Your task to perform on an android device: Show the shopping cart on amazon. Image 0: 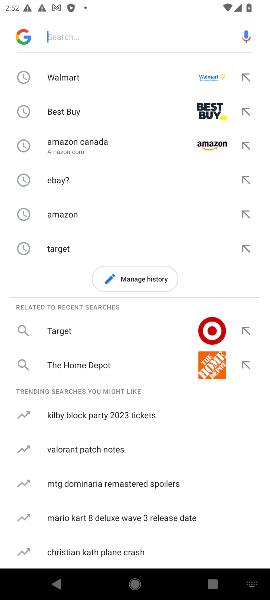
Step 0: press home button
Your task to perform on an android device: Show the shopping cart on amazon. Image 1: 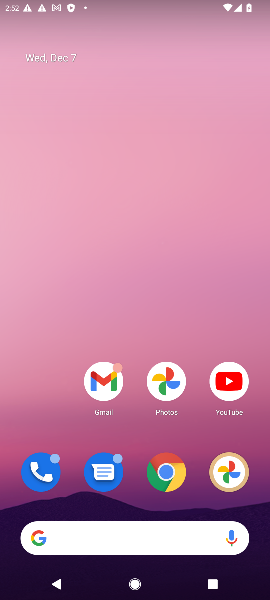
Step 1: drag from (117, 522) to (123, 245)
Your task to perform on an android device: Show the shopping cart on amazon. Image 2: 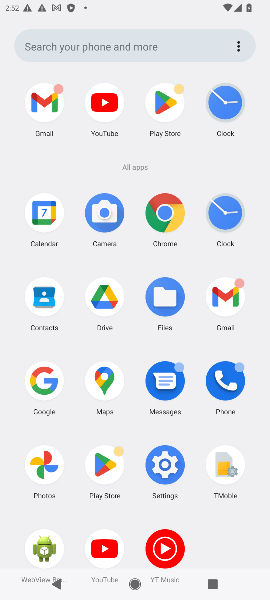
Step 2: click (45, 373)
Your task to perform on an android device: Show the shopping cart on amazon. Image 3: 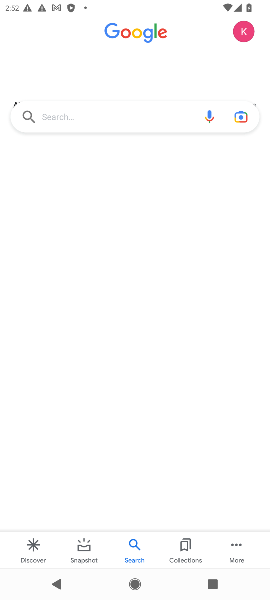
Step 3: click (122, 111)
Your task to perform on an android device: Show the shopping cart on amazon. Image 4: 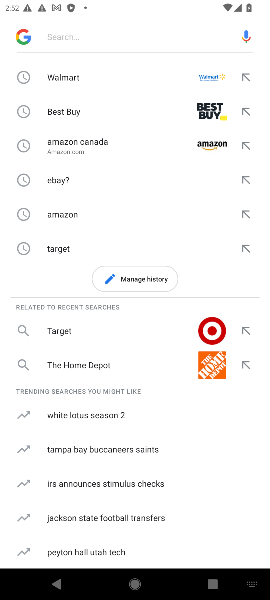
Step 4: click (98, 138)
Your task to perform on an android device: Show the shopping cart on amazon. Image 5: 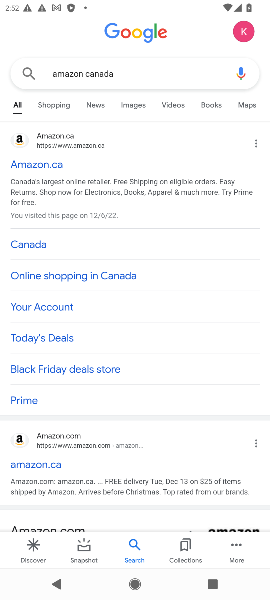
Step 5: click (42, 163)
Your task to perform on an android device: Show the shopping cart on amazon. Image 6: 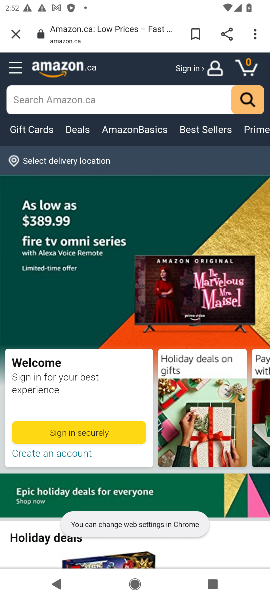
Step 6: click (252, 65)
Your task to perform on an android device: Show the shopping cart on amazon. Image 7: 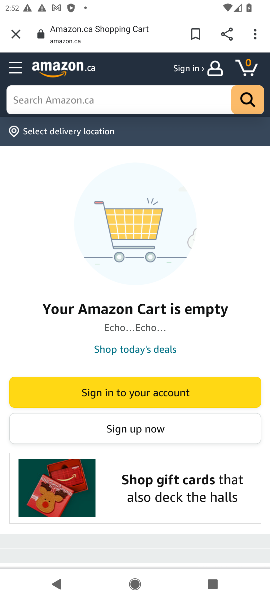
Step 7: click (249, 66)
Your task to perform on an android device: Show the shopping cart on amazon. Image 8: 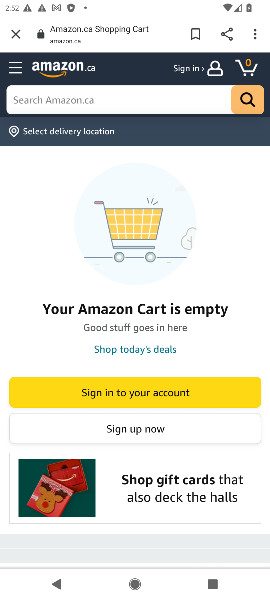
Step 8: task complete